Your task to perform on an android device: What's the weather going to be this weekend? Image 0: 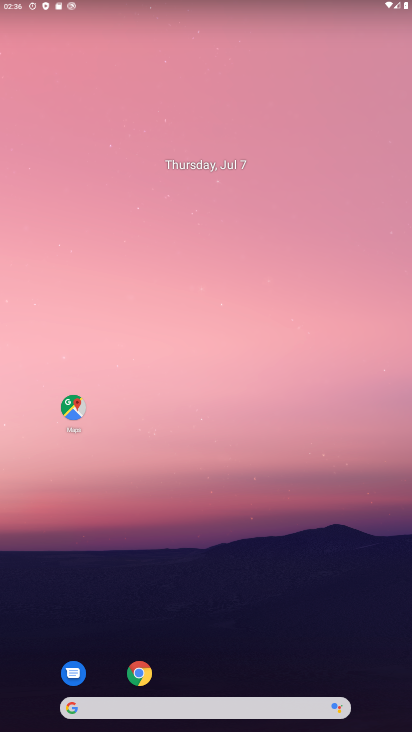
Step 0: drag from (171, 672) to (179, 188)
Your task to perform on an android device: What's the weather going to be this weekend? Image 1: 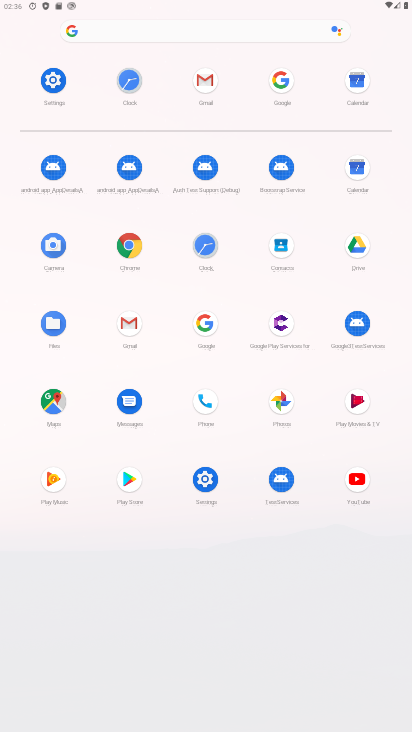
Step 1: click (201, 318)
Your task to perform on an android device: What's the weather going to be this weekend? Image 2: 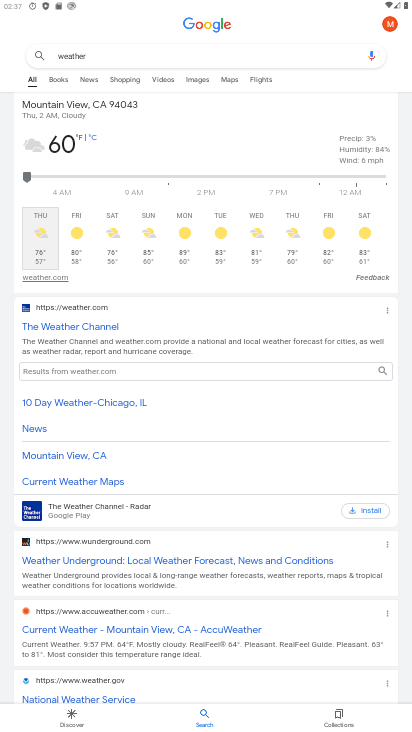
Step 2: task complete